Your task to perform on an android device: Add macbook pro 13 inch to the cart on amazon.com, then select checkout. Image 0: 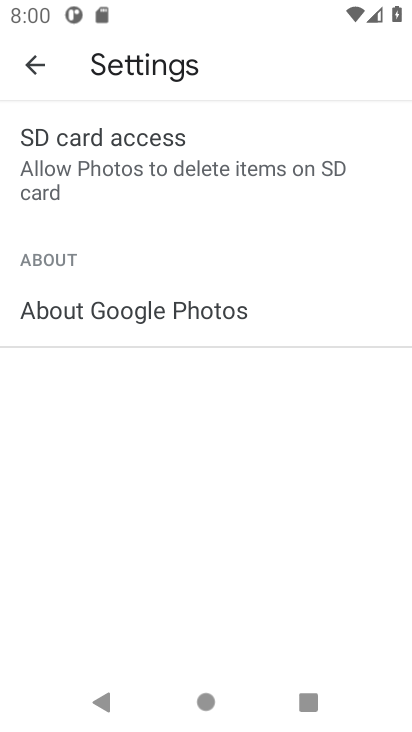
Step 0: press home button
Your task to perform on an android device: Add macbook pro 13 inch to the cart on amazon.com, then select checkout. Image 1: 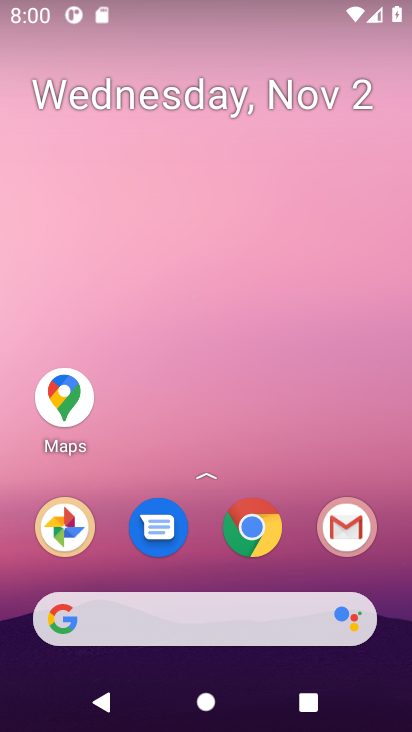
Step 1: click (257, 521)
Your task to perform on an android device: Add macbook pro 13 inch to the cart on amazon.com, then select checkout. Image 2: 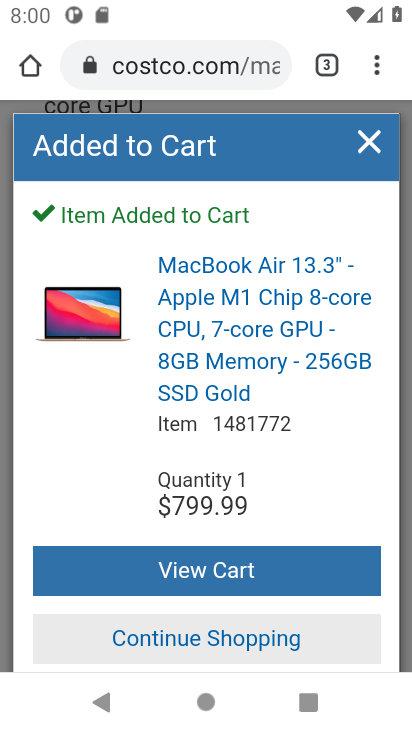
Step 2: click (205, 68)
Your task to perform on an android device: Add macbook pro 13 inch to the cart on amazon.com, then select checkout. Image 3: 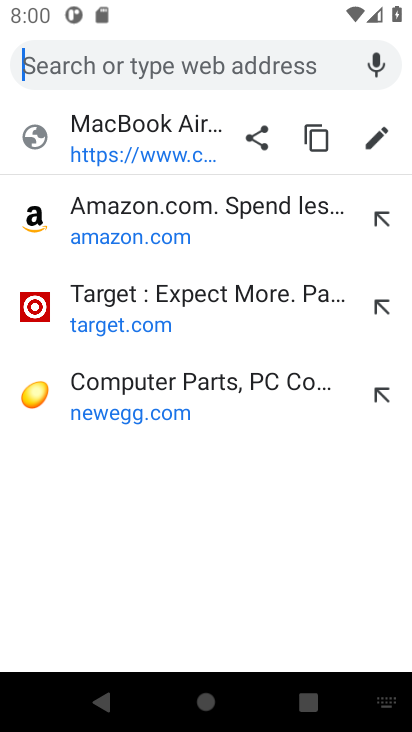
Step 3: type "amazon.com"
Your task to perform on an android device: Add macbook pro 13 inch to the cart on amazon.com, then select checkout. Image 4: 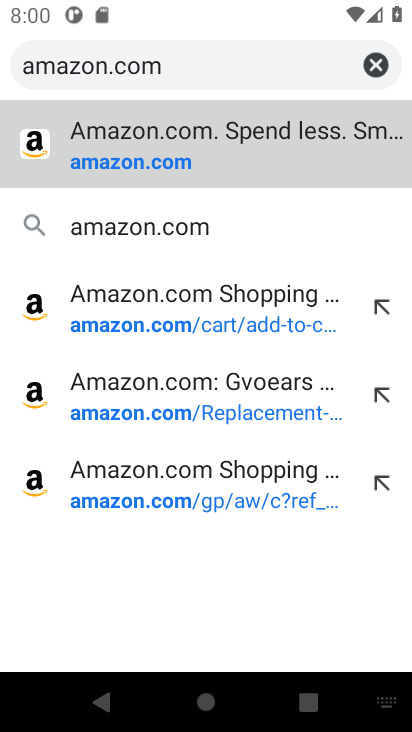
Step 4: click (192, 159)
Your task to perform on an android device: Add macbook pro 13 inch to the cart on amazon.com, then select checkout. Image 5: 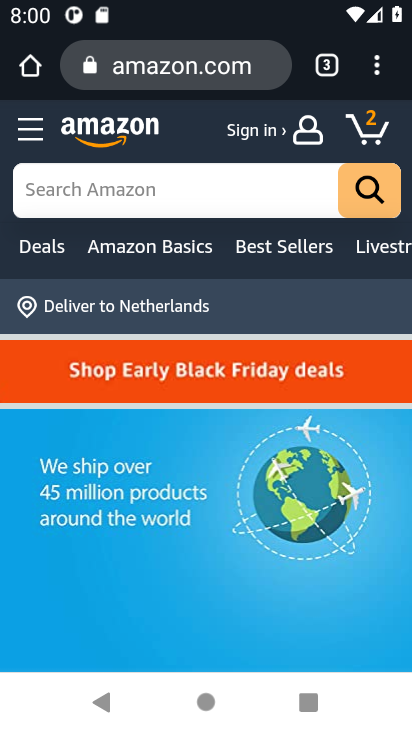
Step 5: click (167, 204)
Your task to perform on an android device: Add macbook pro 13 inch to the cart on amazon.com, then select checkout. Image 6: 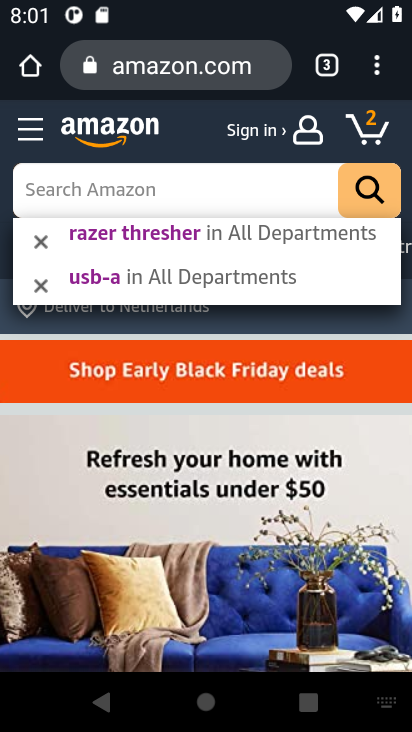
Step 6: type "macbook pro 13 inch"
Your task to perform on an android device: Add macbook pro 13 inch to the cart on amazon.com, then select checkout. Image 7: 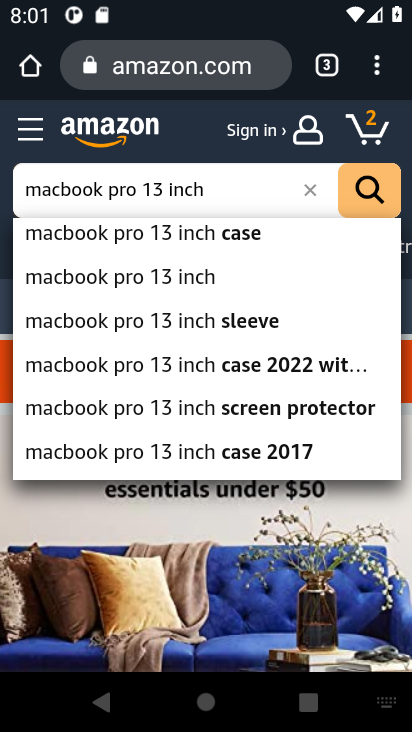
Step 7: click (364, 184)
Your task to perform on an android device: Add macbook pro 13 inch to the cart on amazon.com, then select checkout. Image 8: 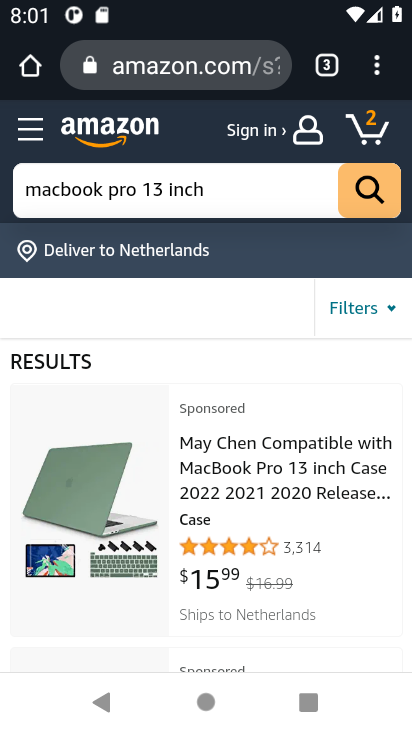
Step 8: drag from (384, 569) to (287, 48)
Your task to perform on an android device: Add macbook pro 13 inch to the cart on amazon.com, then select checkout. Image 9: 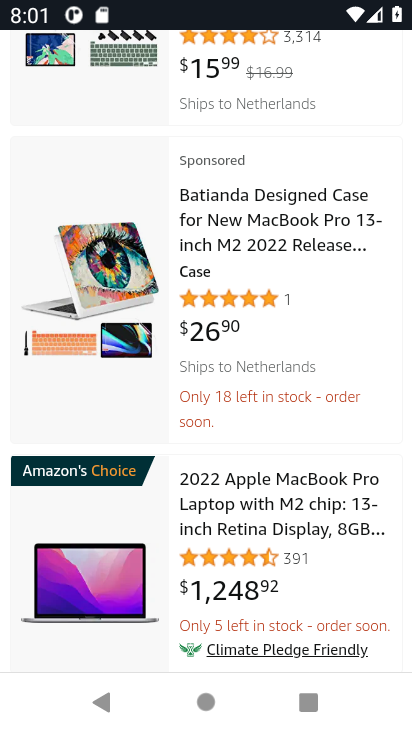
Step 9: click (206, 504)
Your task to perform on an android device: Add macbook pro 13 inch to the cart on amazon.com, then select checkout. Image 10: 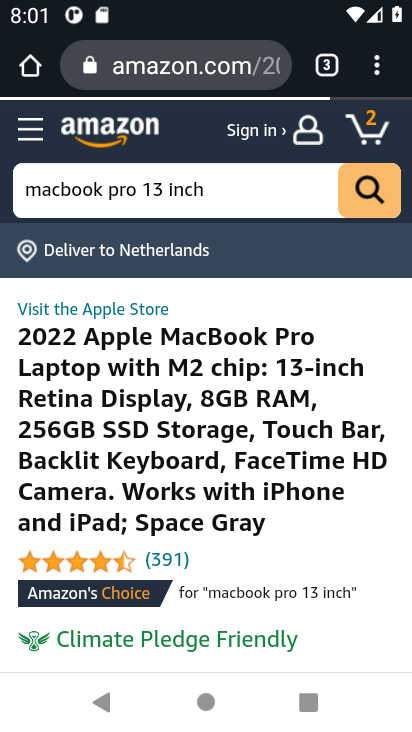
Step 10: drag from (227, 553) to (163, 169)
Your task to perform on an android device: Add macbook pro 13 inch to the cart on amazon.com, then select checkout. Image 11: 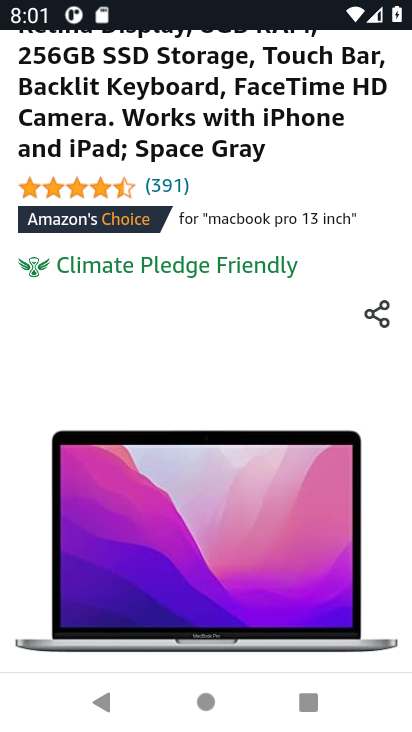
Step 11: drag from (393, 543) to (252, 48)
Your task to perform on an android device: Add macbook pro 13 inch to the cart on amazon.com, then select checkout. Image 12: 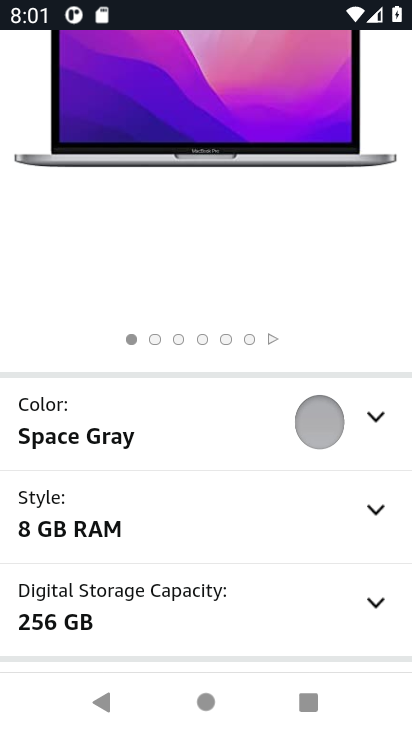
Step 12: drag from (203, 562) to (150, 10)
Your task to perform on an android device: Add macbook pro 13 inch to the cart on amazon.com, then select checkout. Image 13: 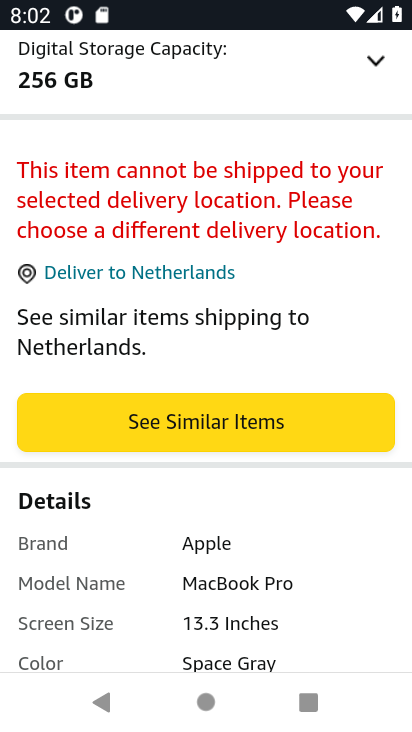
Step 13: click (265, 430)
Your task to perform on an android device: Add macbook pro 13 inch to the cart on amazon.com, then select checkout. Image 14: 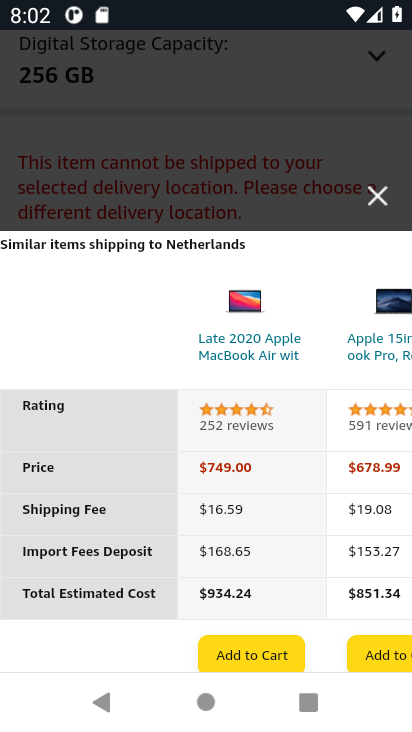
Step 14: click (382, 192)
Your task to perform on an android device: Add macbook pro 13 inch to the cart on amazon.com, then select checkout. Image 15: 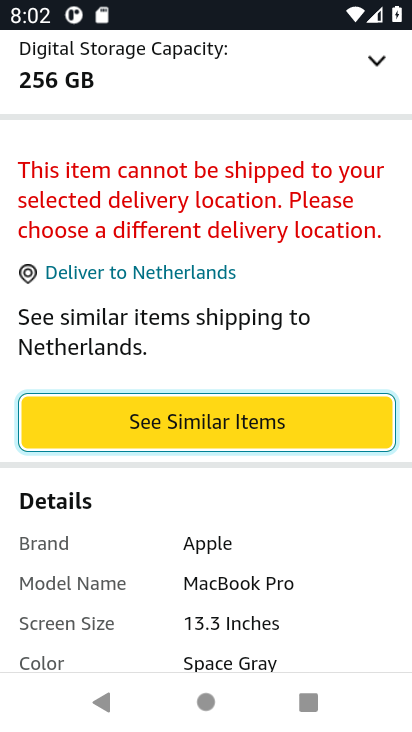
Step 15: drag from (314, 593) to (238, 12)
Your task to perform on an android device: Add macbook pro 13 inch to the cart on amazon.com, then select checkout. Image 16: 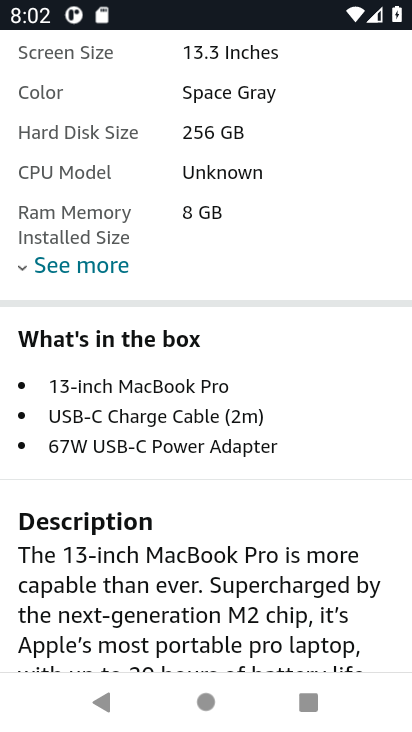
Step 16: drag from (265, 468) to (239, 106)
Your task to perform on an android device: Add macbook pro 13 inch to the cart on amazon.com, then select checkout. Image 17: 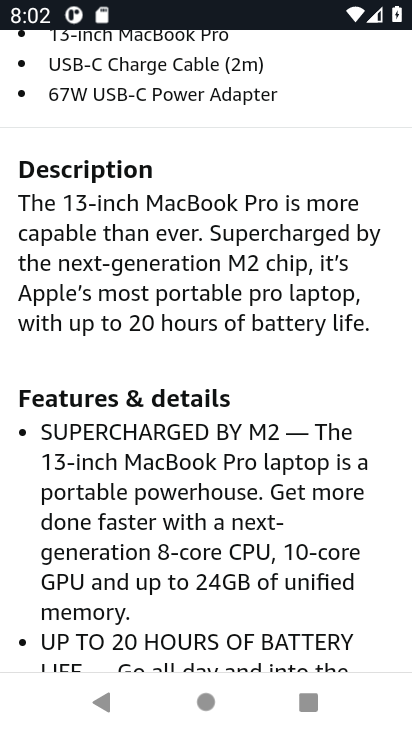
Step 17: press back button
Your task to perform on an android device: Add macbook pro 13 inch to the cart on amazon.com, then select checkout. Image 18: 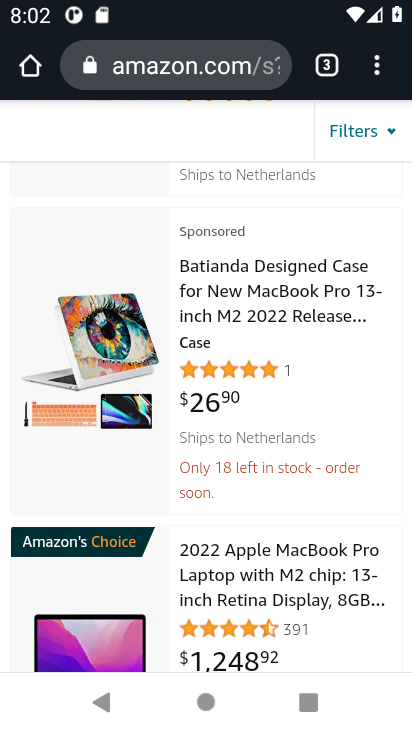
Step 18: drag from (243, 521) to (213, 123)
Your task to perform on an android device: Add macbook pro 13 inch to the cart on amazon.com, then select checkout. Image 19: 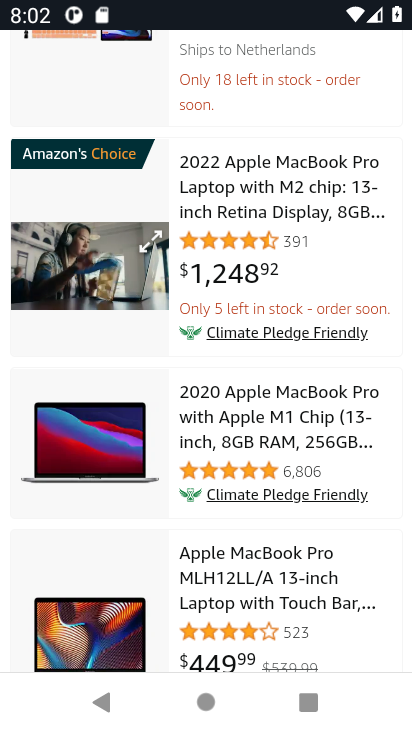
Step 19: click (122, 438)
Your task to perform on an android device: Add macbook pro 13 inch to the cart on amazon.com, then select checkout. Image 20: 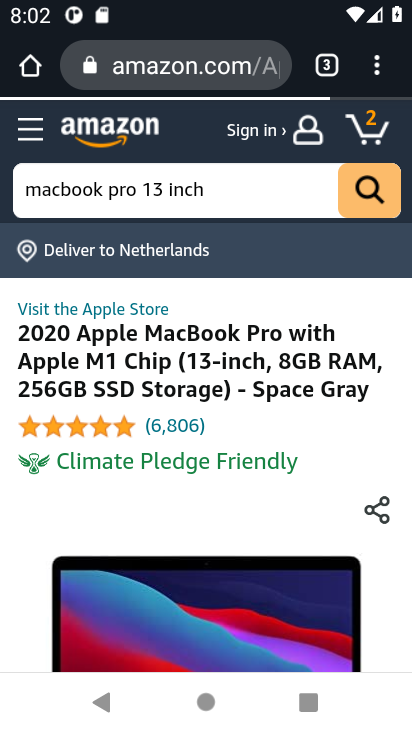
Step 20: task complete